Your task to perform on an android device: Search for seafood restaurants on Google Maps Image 0: 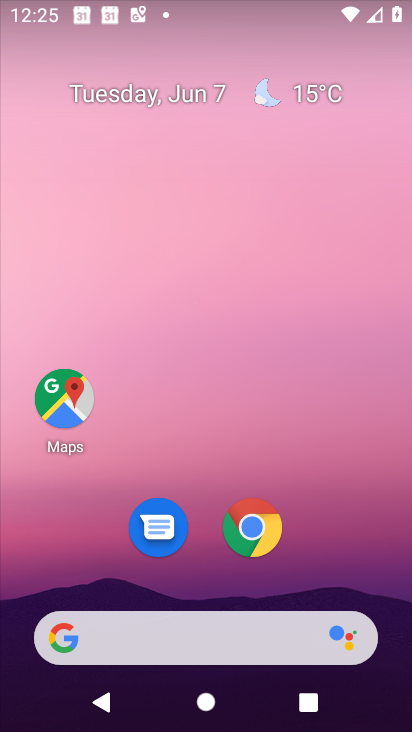
Step 0: drag from (275, 653) to (204, 237)
Your task to perform on an android device: Search for seafood restaurants on Google Maps Image 1: 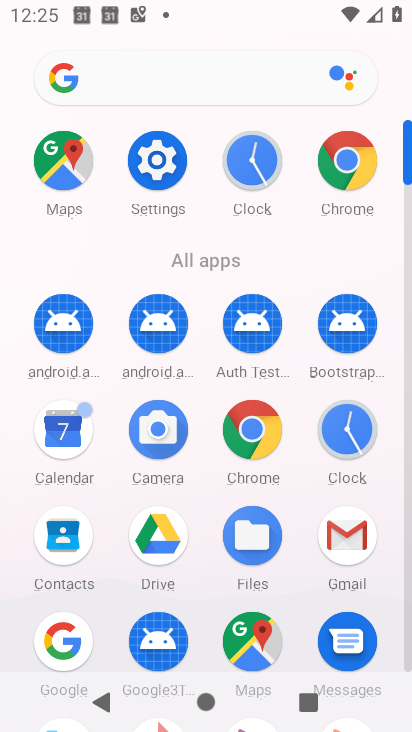
Step 1: click (65, 653)
Your task to perform on an android device: Search for seafood restaurants on Google Maps Image 2: 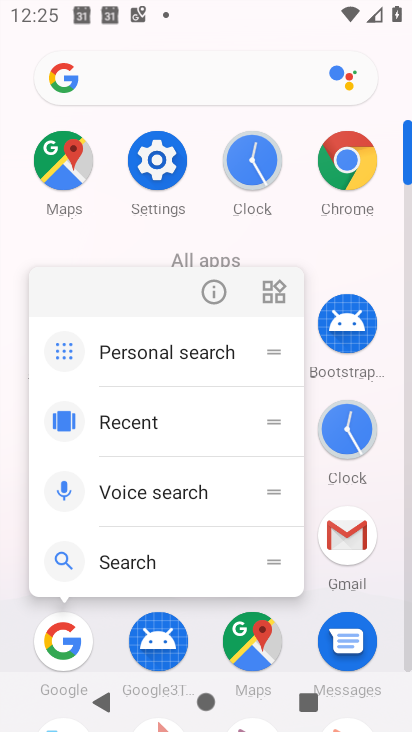
Step 2: click (265, 629)
Your task to perform on an android device: Search for seafood restaurants on Google Maps Image 3: 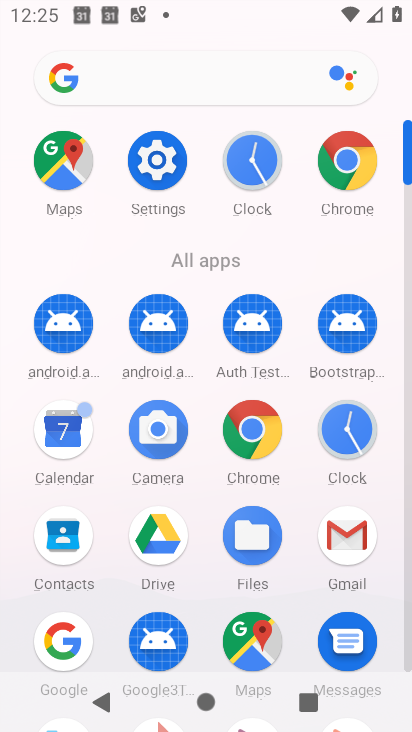
Step 3: click (262, 639)
Your task to perform on an android device: Search for seafood restaurants on Google Maps Image 4: 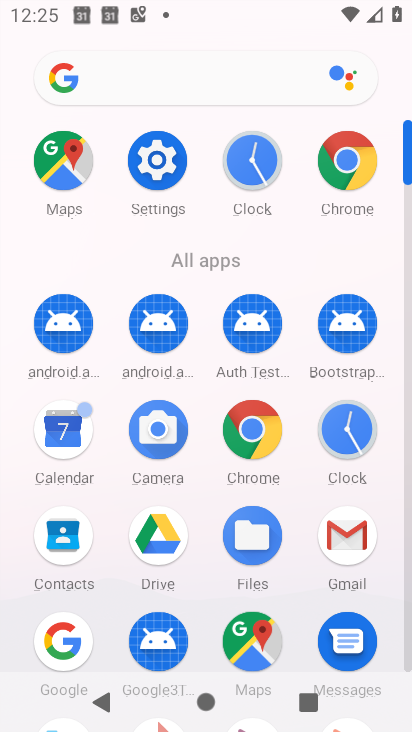
Step 4: click (262, 639)
Your task to perform on an android device: Search for seafood restaurants on Google Maps Image 5: 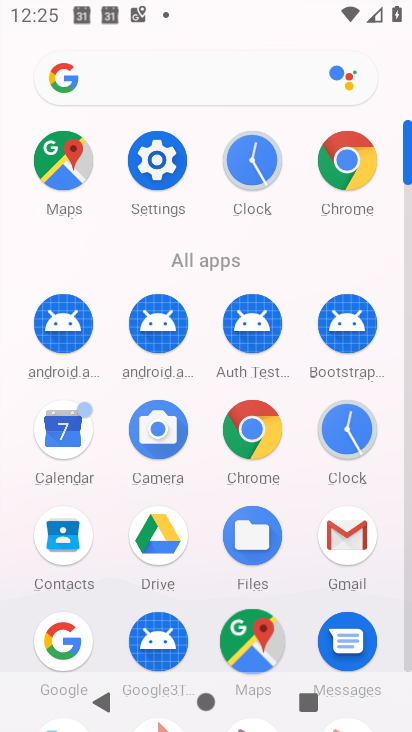
Step 5: click (265, 637)
Your task to perform on an android device: Search for seafood restaurants on Google Maps Image 6: 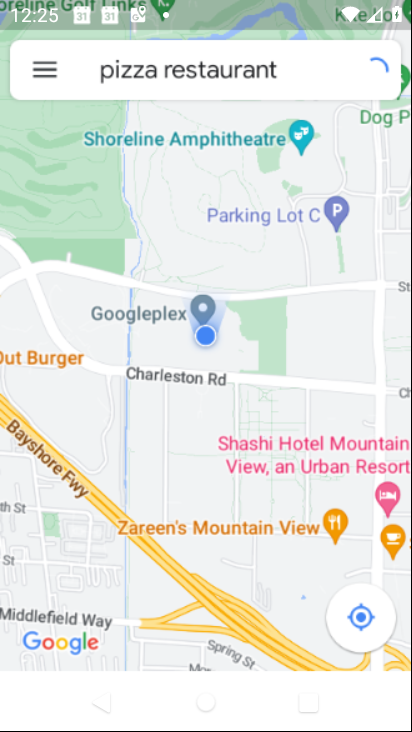
Step 6: click (265, 634)
Your task to perform on an android device: Search for seafood restaurants on Google Maps Image 7: 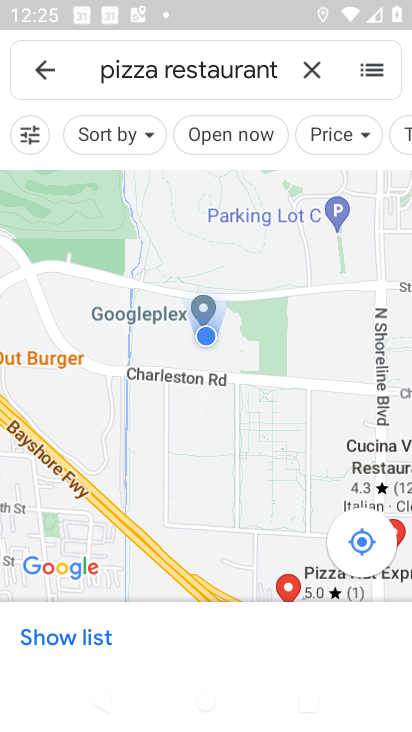
Step 7: click (305, 71)
Your task to perform on an android device: Search for seafood restaurants on Google Maps Image 8: 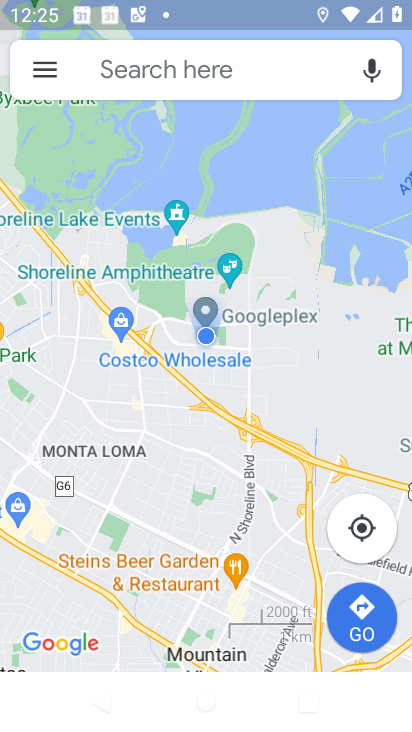
Step 8: click (123, 64)
Your task to perform on an android device: Search for seafood restaurants on Google Maps Image 9: 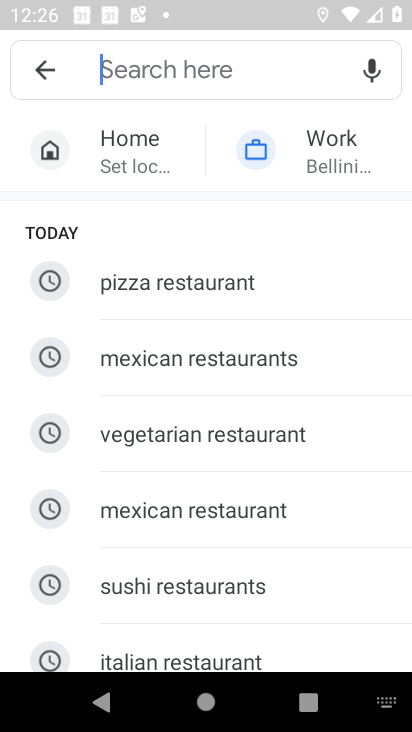
Step 9: type "seafood restaurants"
Your task to perform on an android device: Search for seafood restaurants on Google Maps Image 10: 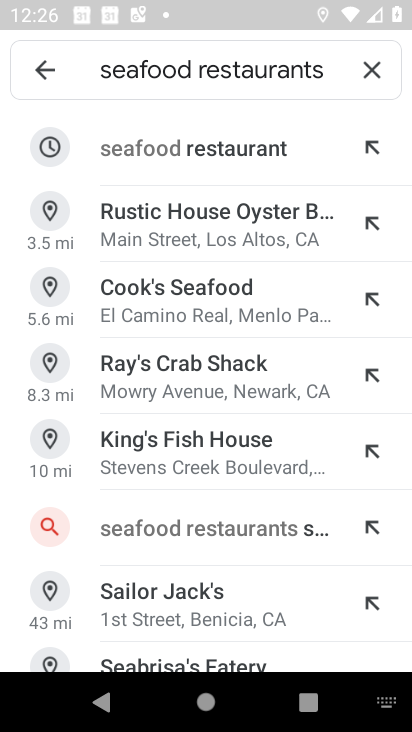
Step 10: click (224, 151)
Your task to perform on an android device: Search for seafood restaurants on Google Maps Image 11: 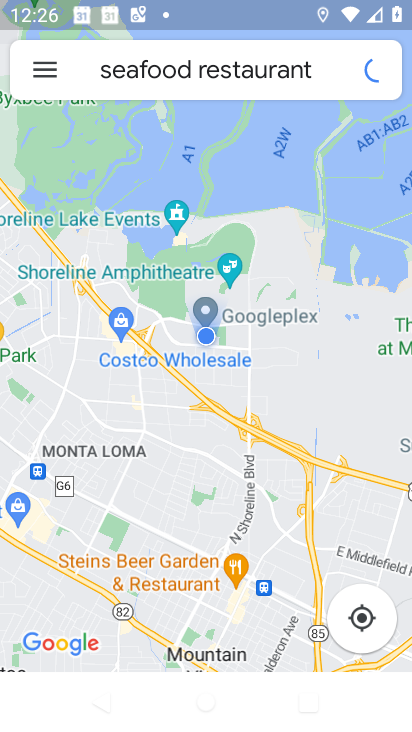
Step 11: task complete